Your task to perform on an android device: turn off location history Image 0: 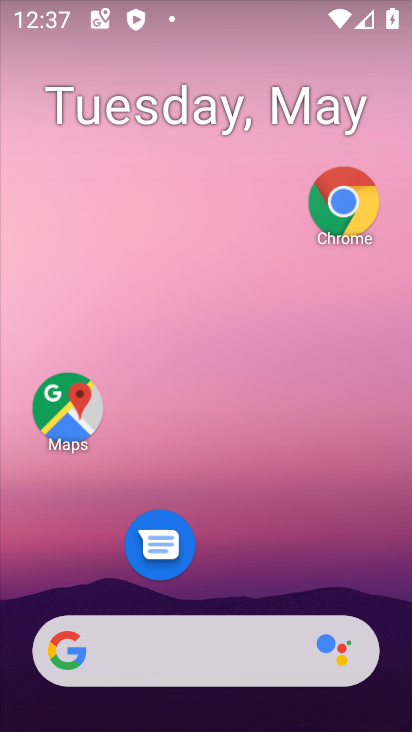
Step 0: drag from (184, 605) to (259, 39)
Your task to perform on an android device: turn off location history Image 1: 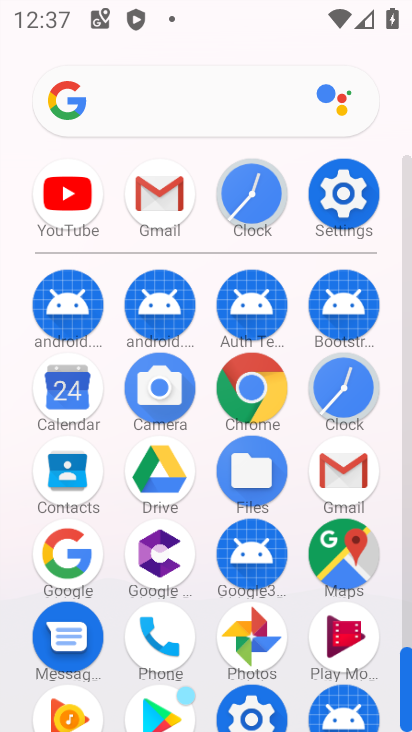
Step 1: click (337, 195)
Your task to perform on an android device: turn off location history Image 2: 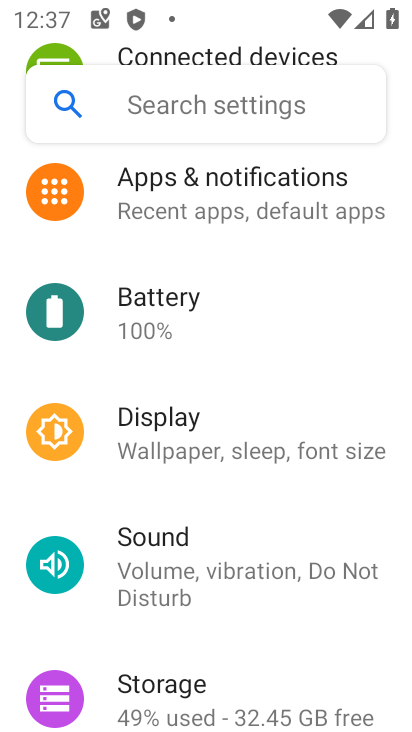
Step 2: drag from (165, 639) to (230, 95)
Your task to perform on an android device: turn off location history Image 3: 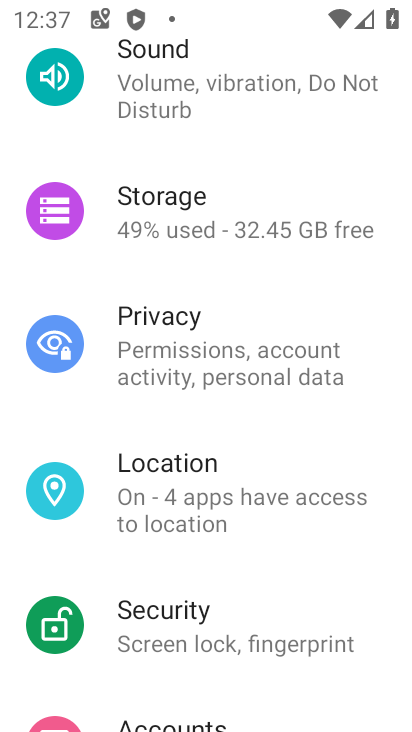
Step 3: click (142, 488)
Your task to perform on an android device: turn off location history Image 4: 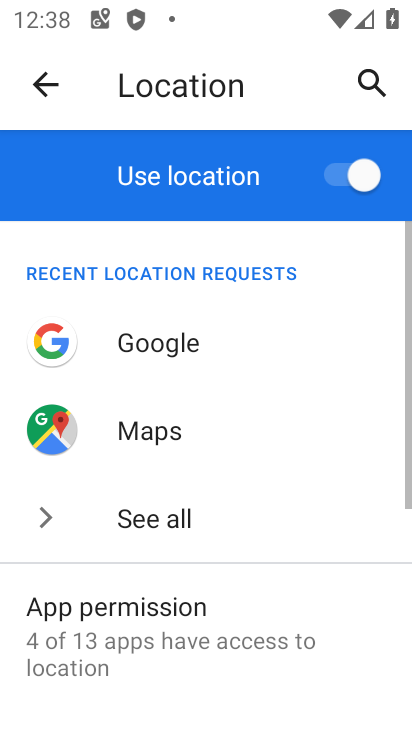
Step 4: drag from (186, 674) to (248, 178)
Your task to perform on an android device: turn off location history Image 5: 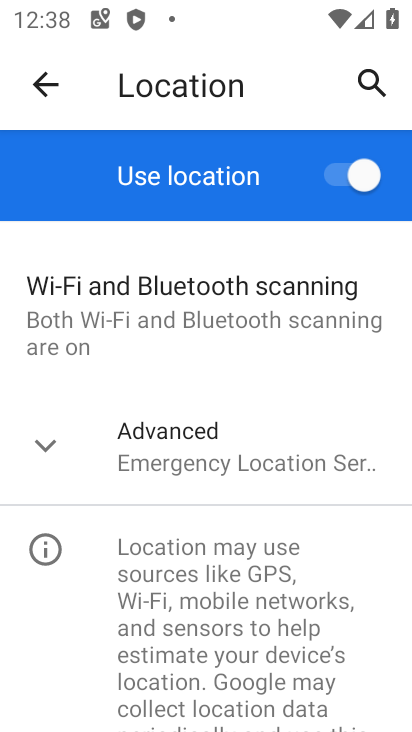
Step 5: click (158, 458)
Your task to perform on an android device: turn off location history Image 6: 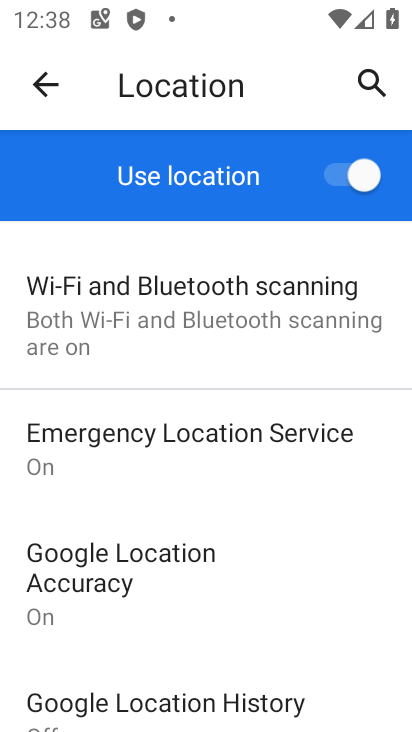
Step 6: click (140, 713)
Your task to perform on an android device: turn off location history Image 7: 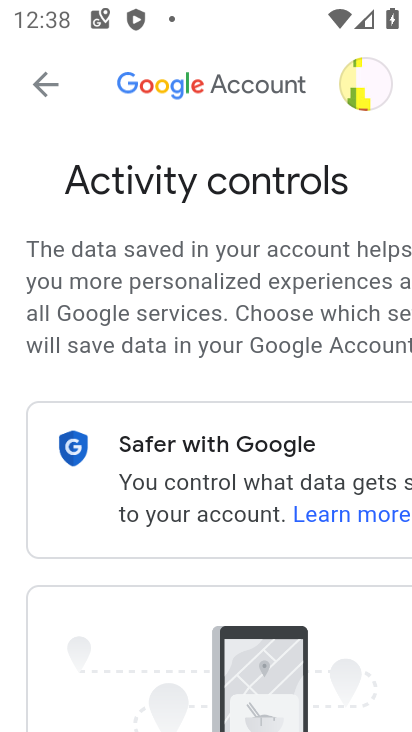
Step 7: task complete